Your task to perform on an android device: Open notification settings Image 0: 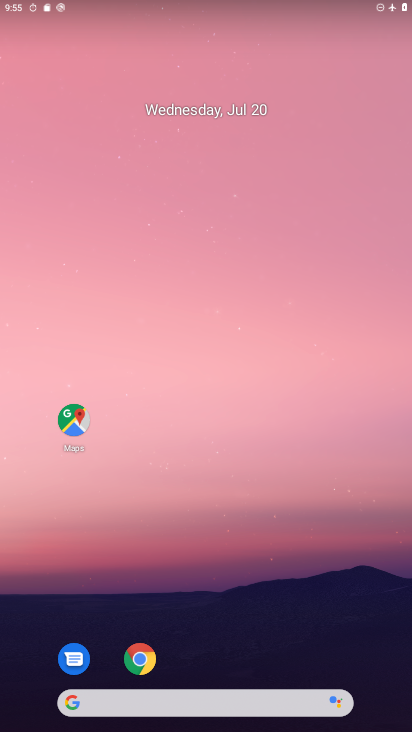
Step 0: drag from (293, 584) to (201, 2)
Your task to perform on an android device: Open notification settings Image 1: 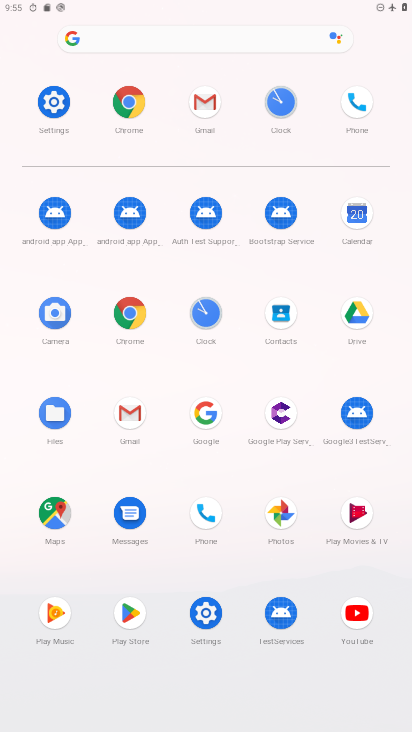
Step 1: click (58, 94)
Your task to perform on an android device: Open notification settings Image 2: 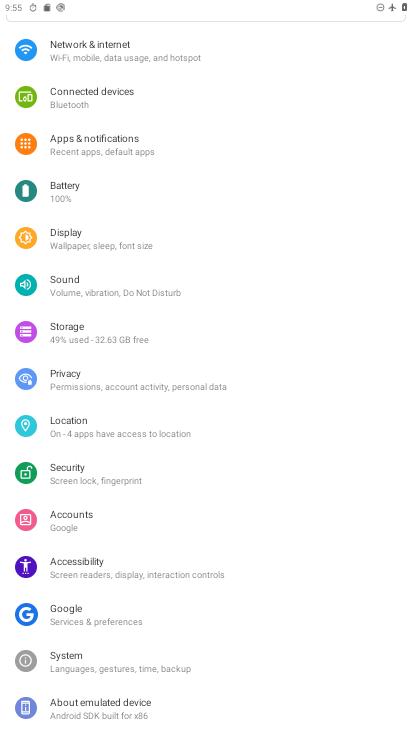
Step 2: click (95, 156)
Your task to perform on an android device: Open notification settings Image 3: 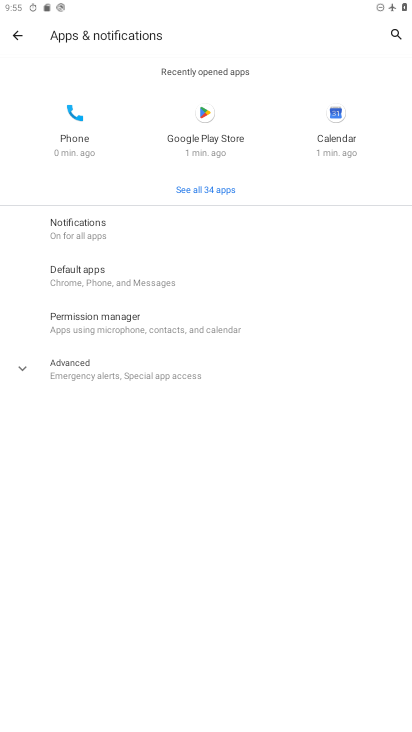
Step 3: click (109, 251)
Your task to perform on an android device: Open notification settings Image 4: 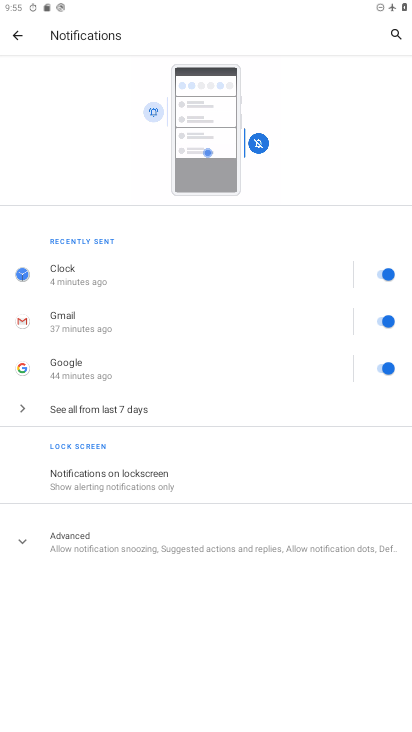
Step 4: task complete